Your task to perform on an android device: toggle sleep mode Image 0: 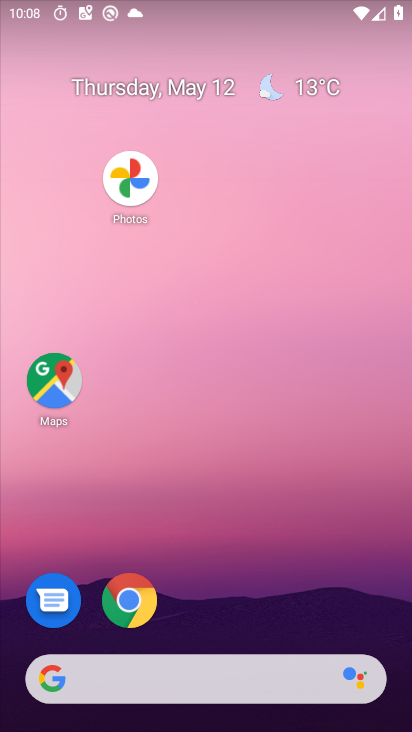
Step 0: drag from (275, 595) to (103, 2)
Your task to perform on an android device: toggle sleep mode Image 1: 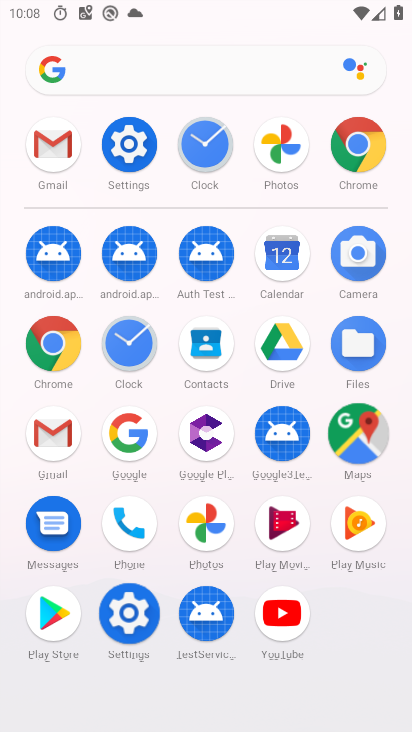
Step 1: drag from (281, 444) to (180, 48)
Your task to perform on an android device: toggle sleep mode Image 2: 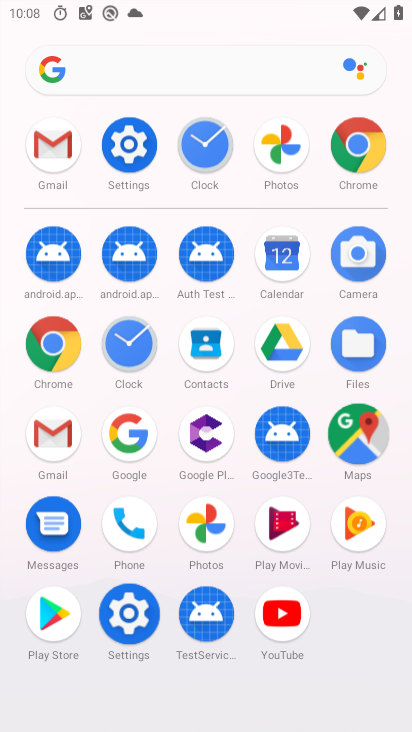
Step 2: drag from (188, 220) to (154, 27)
Your task to perform on an android device: toggle sleep mode Image 3: 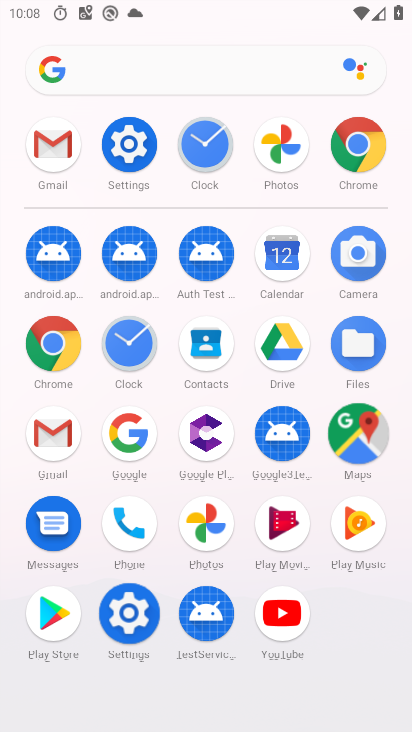
Step 3: drag from (250, 338) to (204, 100)
Your task to perform on an android device: toggle sleep mode Image 4: 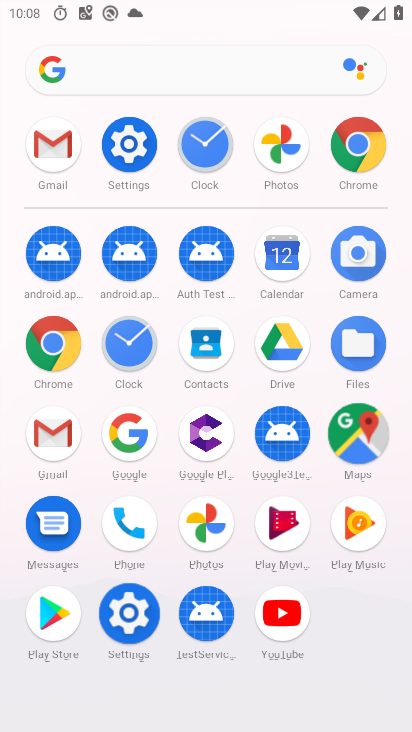
Step 4: click (136, 130)
Your task to perform on an android device: toggle sleep mode Image 5: 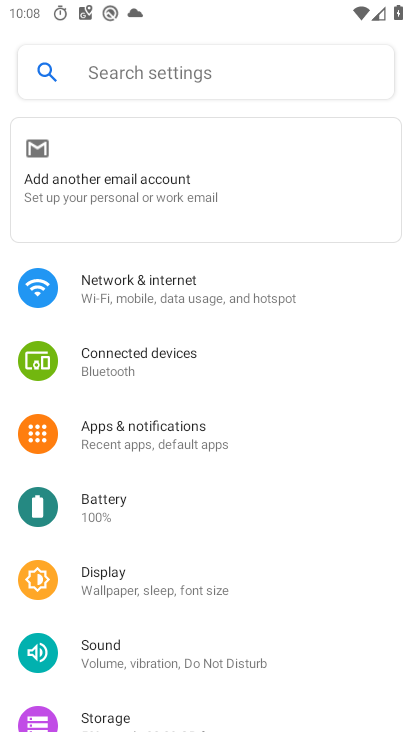
Step 5: drag from (151, 514) to (124, 193)
Your task to perform on an android device: toggle sleep mode Image 6: 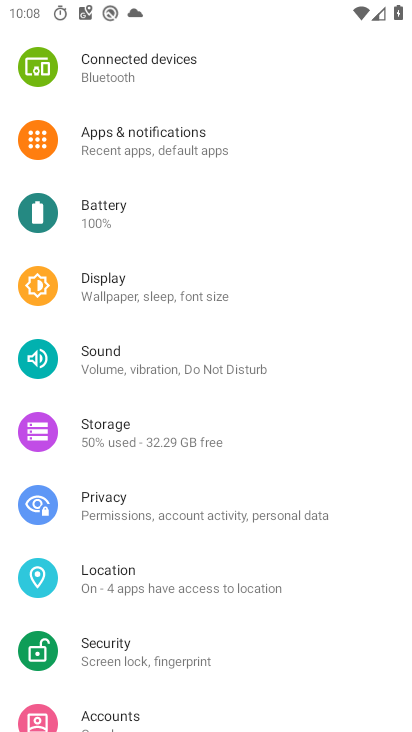
Step 6: drag from (86, 514) to (91, 257)
Your task to perform on an android device: toggle sleep mode Image 7: 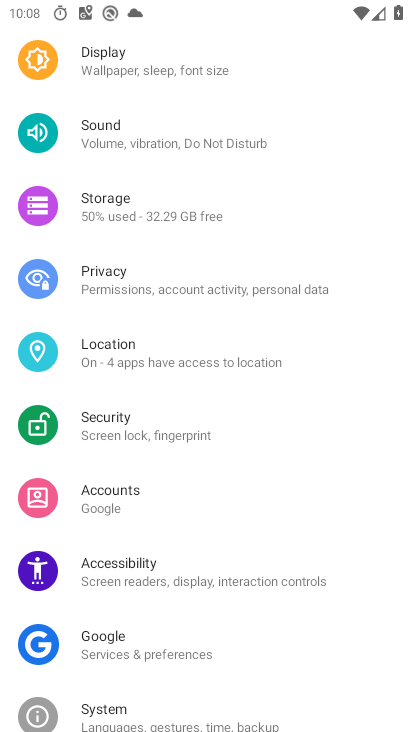
Step 7: drag from (138, 478) to (135, 211)
Your task to perform on an android device: toggle sleep mode Image 8: 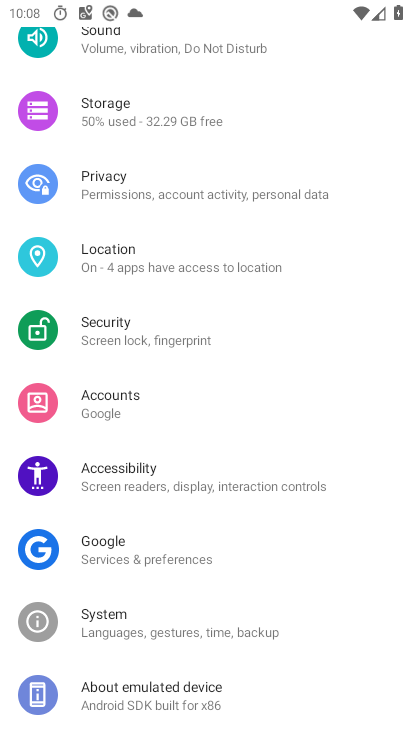
Step 8: drag from (105, 196) to (128, 503)
Your task to perform on an android device: toggle sleep mode Image 9: 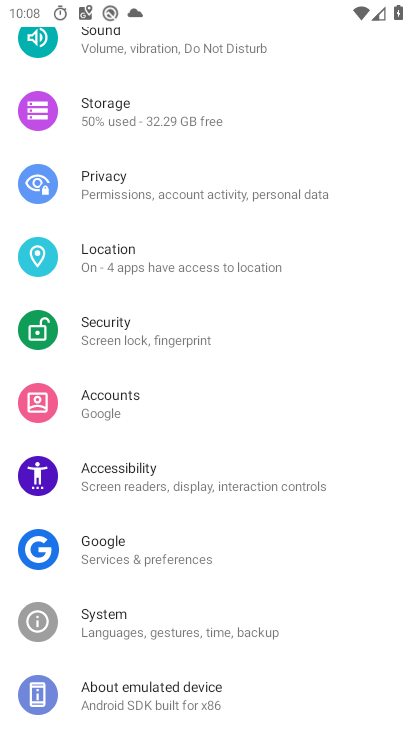
Step 9: drag from (130, 213) to (138, 503)
Your task to perform on an android device: toggle sleep mode Image 10: 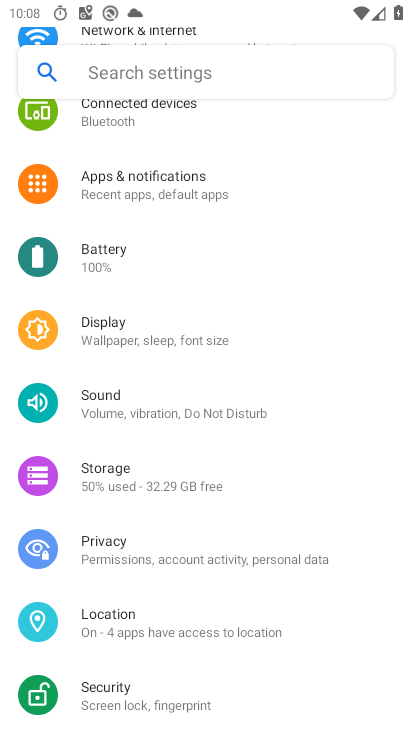
Step 10: click (112, 350)
Your task to perform on an android device: toggle sleep mode Image 11: 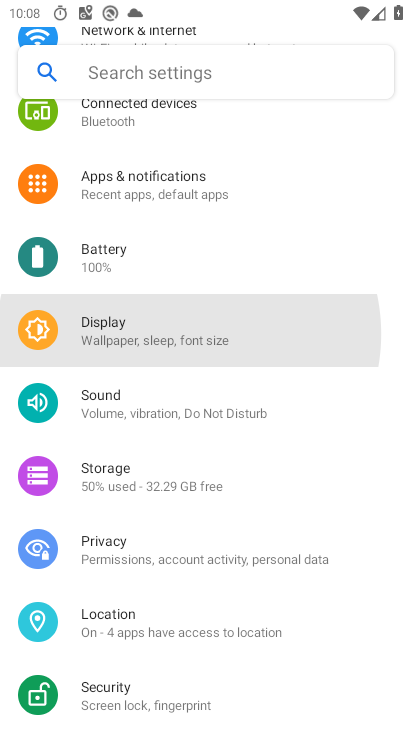
Step 11: click (112, 351)
Your task to perform on an android device: toggle sleep mode Image 12: 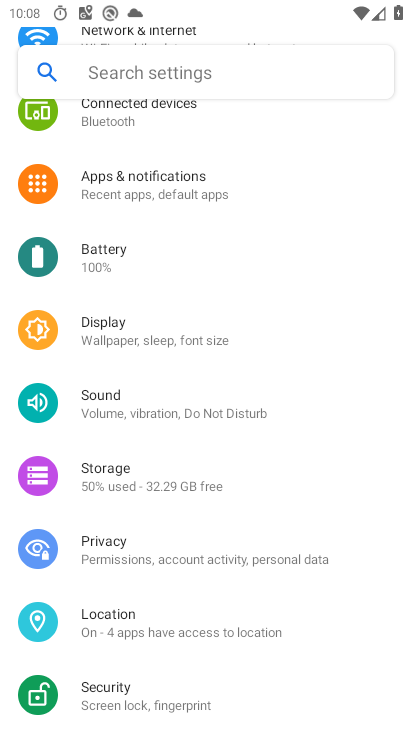
Step 12: click (102, 333)
Your task to perform on an android device: toggle sleep mode Image 13: 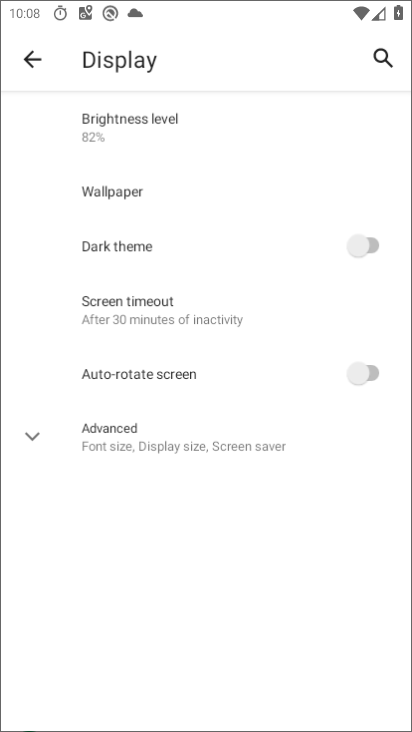
Step 13: click (102, 333)
Your task to perform on an android device: toggle sleep mode Image 14: 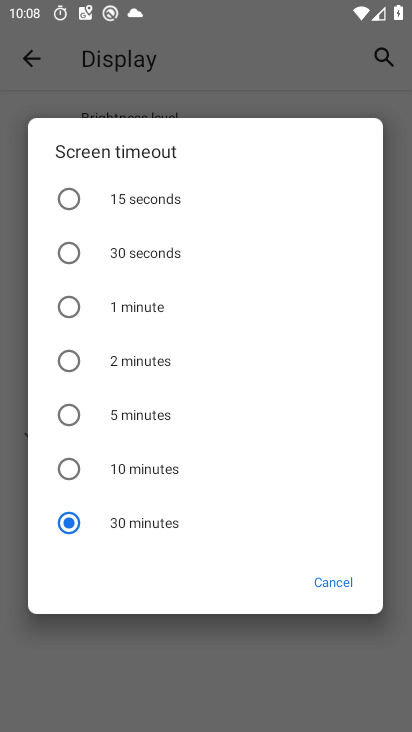
Step 14: click (67, 470)
Your task to perform on an android device: toggle sleep mode Image 15: 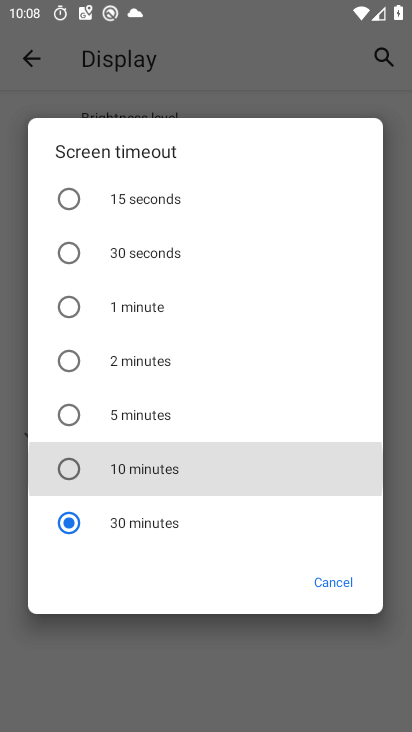
Step 15: click (67, 469)
Your task to perform on an android device: toggle sleep mode Image 16: 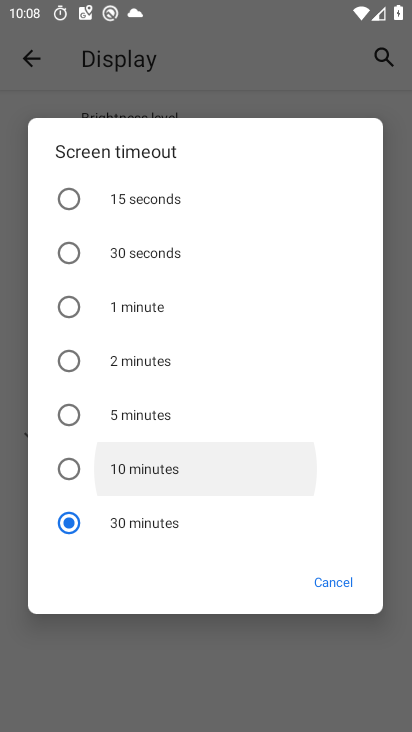
Step 16: click (67, 468)
Your task to perform on an android device: toggle sleep mode Image 17: 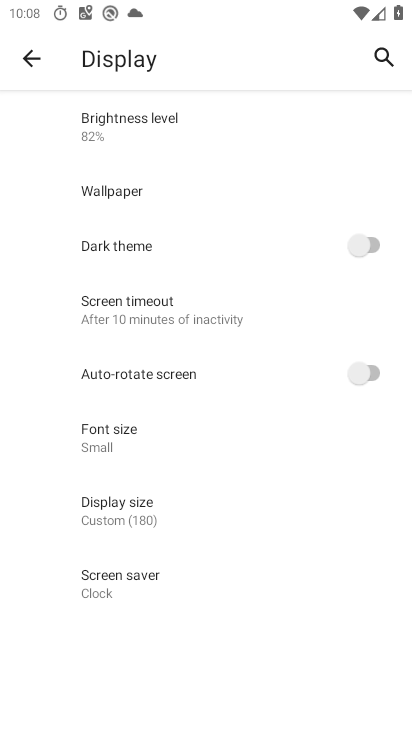
Step 17: task complete